Your task to perform on an android device: clear all cookies in the chrome app Image 0: 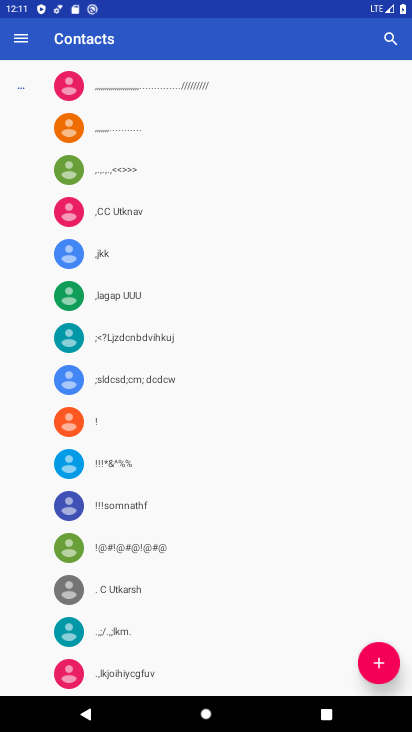
Step 0: press home button
Your task to perform on an android device: clear all cookies in the chrome app Image 1: 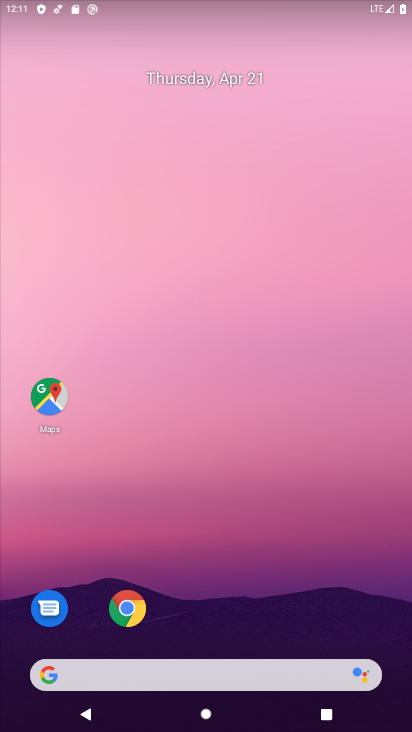
Step 1: click (131, 596)
Your task to perform on an android device: clear all cookies in the chrome app Image 2: 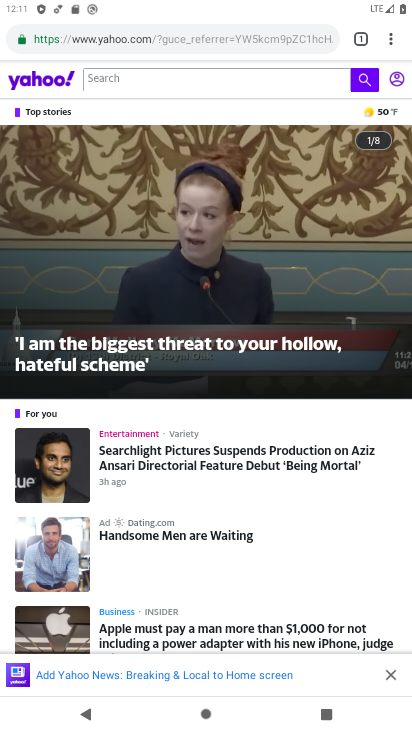
Step 2: drag from (388, 36) to (256, 258)
Your task to perform on an android device: clear all cookies in the chrome app Image 3: 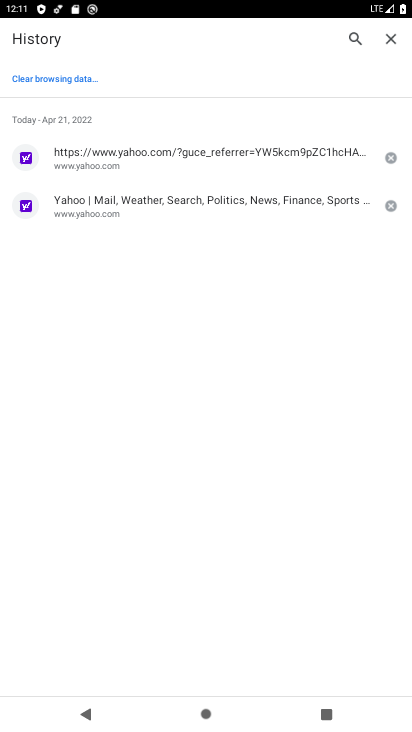
Step 3: click (33, 71)
Your task to perform on an android device: clear all cookies in the chrome app Image 4: 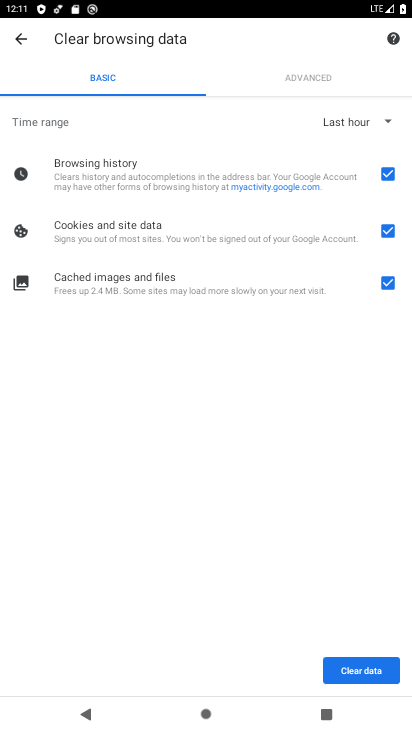
Step 4: click (341, 658)
Your task to perform on an android device: clear all cookies in the chrome app Image 5: 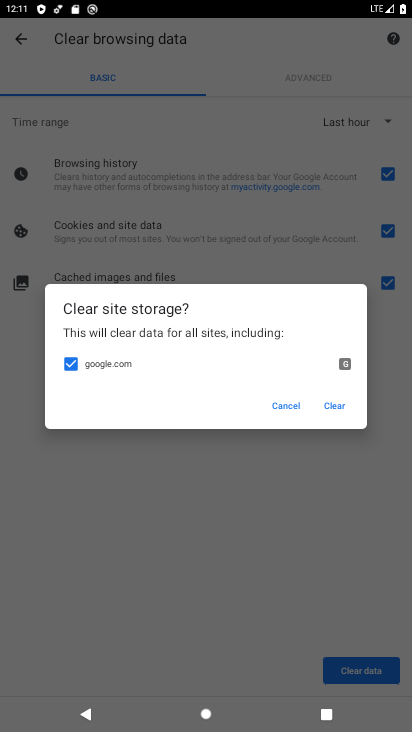
Step 5: click (327, 407)
Your task to perform on an android device: clear all cookies in the chrome app Image 6: 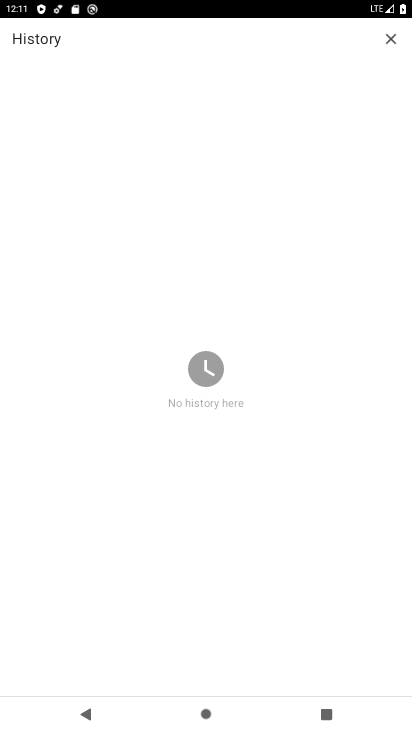
Step 6: task complete